Your task to perform on an android device: toggle notification dots Image 0: 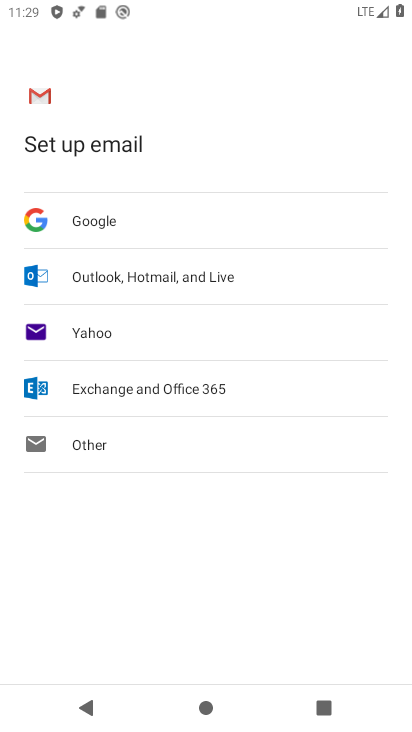
Step 0: press home button
Your task to perform on an android device: toggle notification dots Image 1: 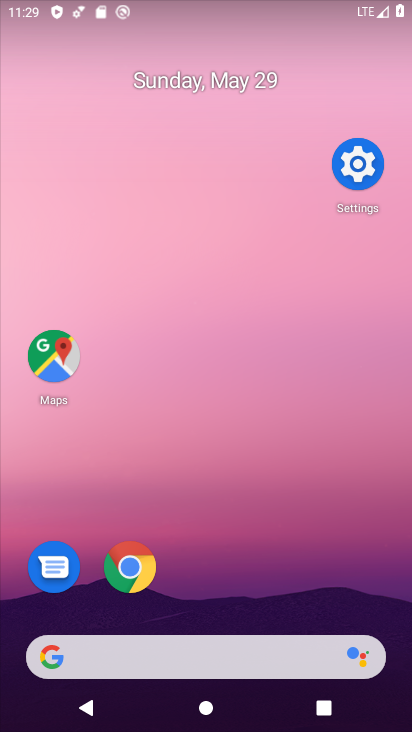
Step 1: drag from (268, 560) to (249, 240)
Your task to perform on an android device: toggle notification dots Image 2: 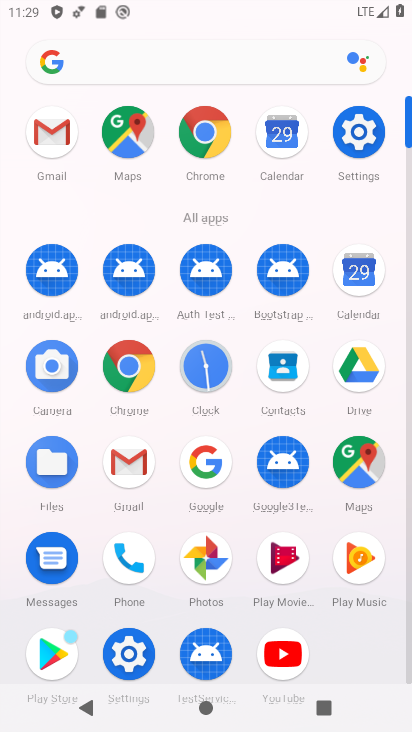
Step 2: click (350, 151)
Your task to perform on an android device: toggle notification dots Image 3: 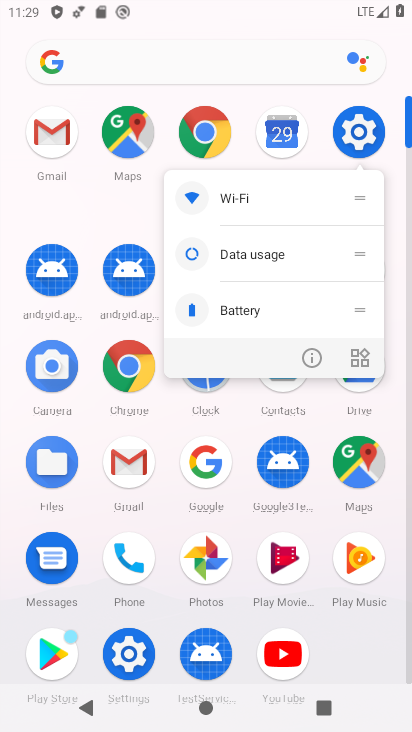
Step 3: click (351, 143)
Your task to perform on an android device: toggle notification dots Image 4: 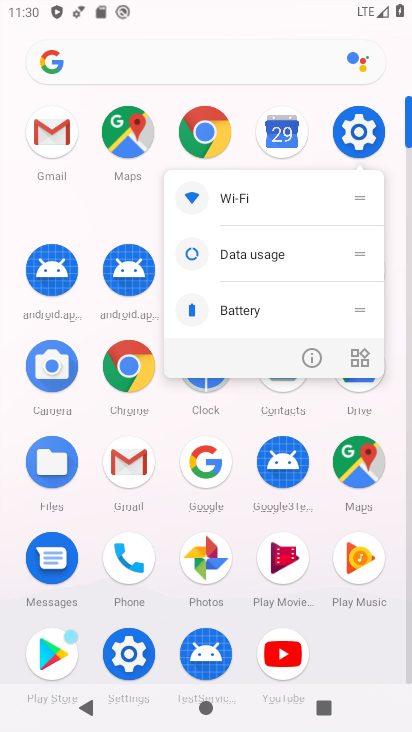
Step 4: click (364, 147)
Your task to perform on an android device: toggle notification dots Image 5: 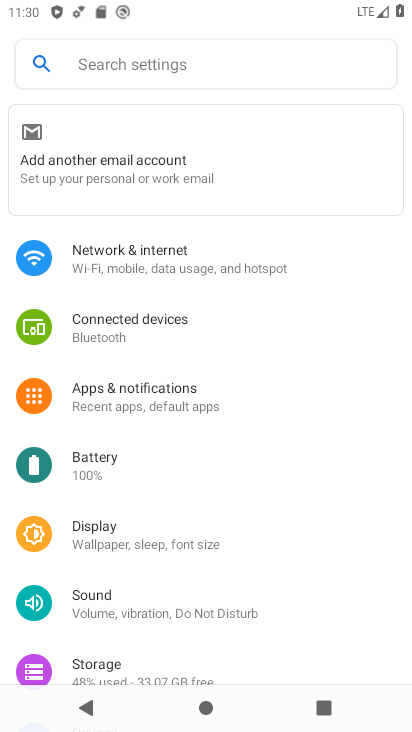
Step 5: click (149, 395)
Your task to perform on an android device: toggle notification dots Image 6: 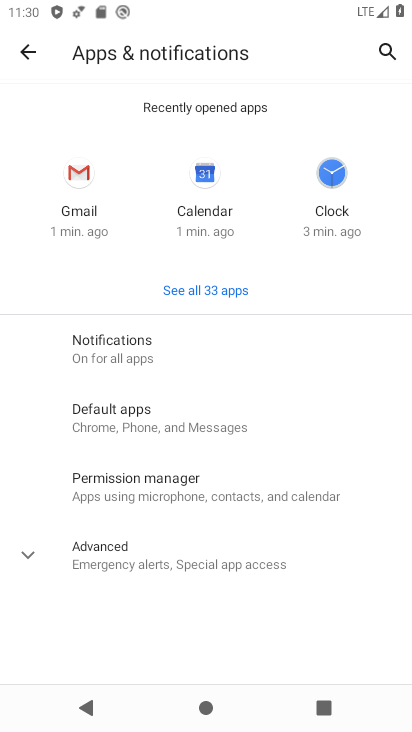
Step 6: click (159, 363)
Your task to perform on an android device: toggle notification dots Image 7: 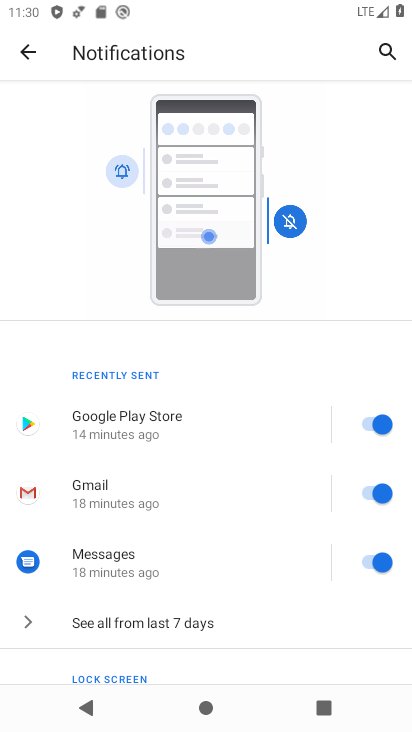
Step 7: drag from (215, 564) to (241, 299)
Your task to perform on an android device: toggle notification dots Image 8: 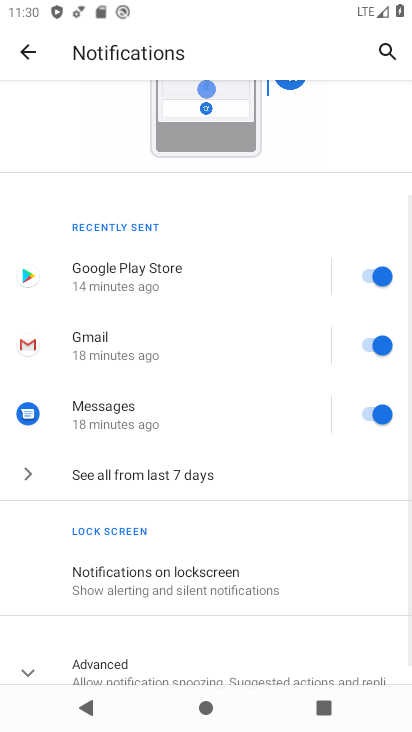
Step 8: drag from (236, 656) to (246, 333)
Your task to perform on an android device: toggle notification dots Image 9: 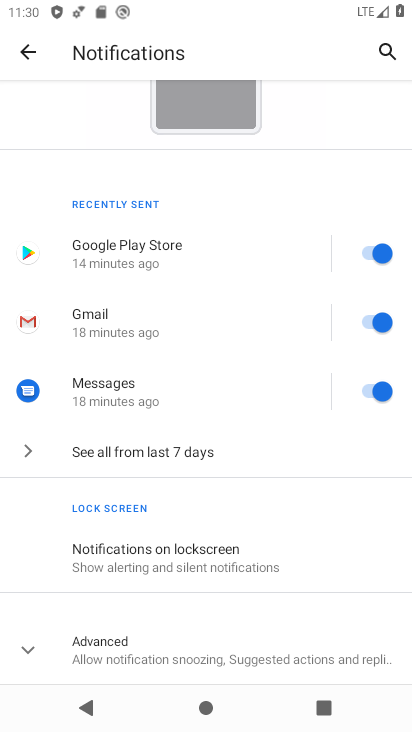
Step 9: click (242, 644)
Your task to perform on an android device: toggle notification dots Image 10: 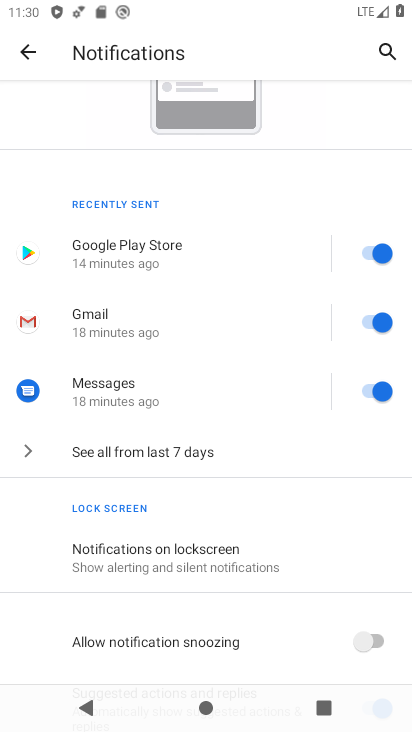
Step 10: drag from (294, 642) to (284, 433)
Your task to perform on an android device: toggle notification dots Image 11: 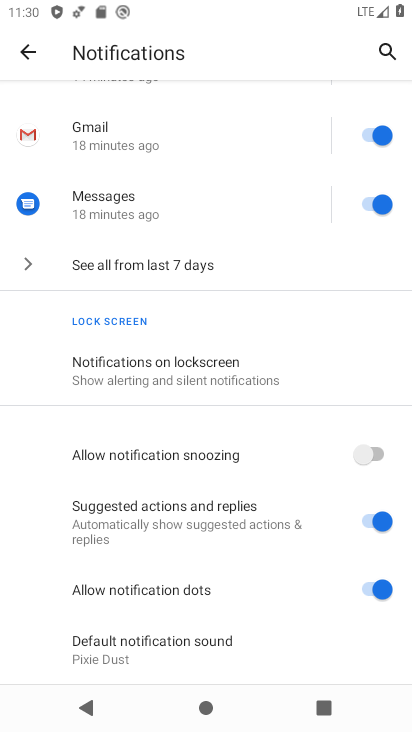
Step 11: click (376, 587)
Your task to perform on an android device: toggle notification dots Image 12: 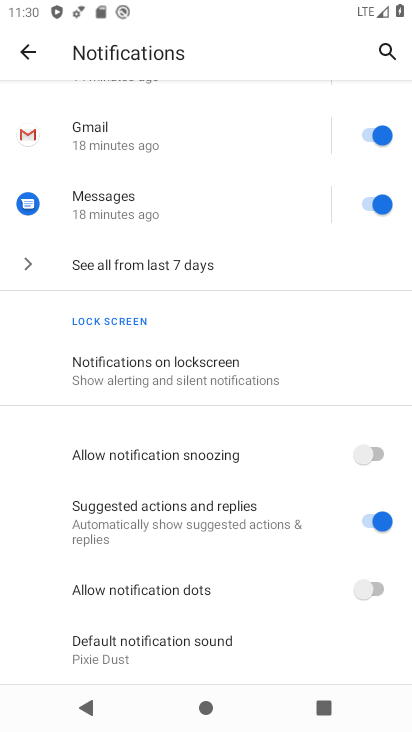
Step 12: task complete